Your task to perform on an android device: Open display settings Image 0: 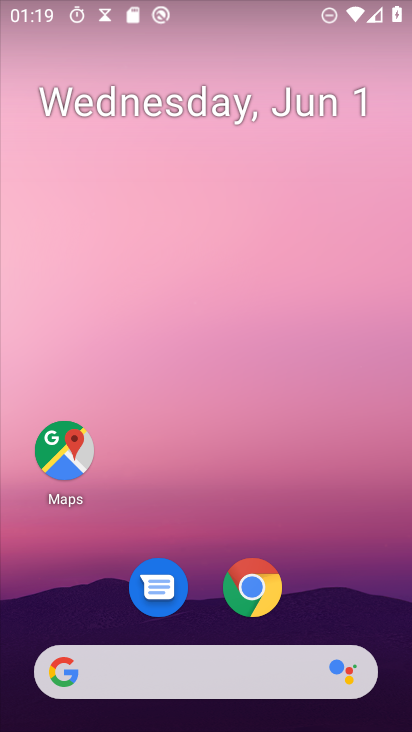
Step 0: drag from (305, 609) to (289, 135)
Your task to perform on an android device: Open display settings Image 1: 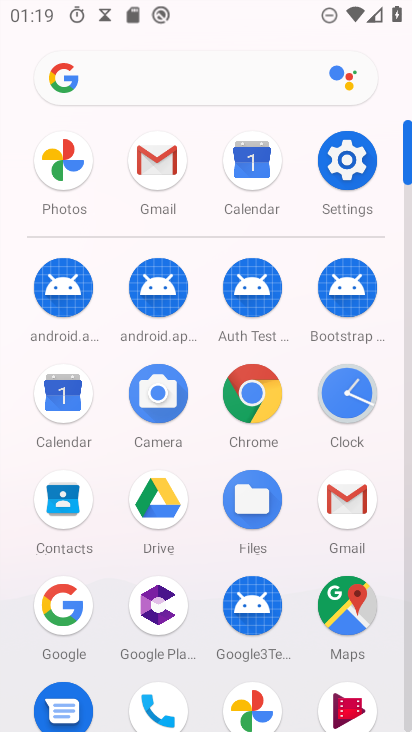
Step 1: click (354, 152)
Your task to perform on an android device: Open display settings Image 2: 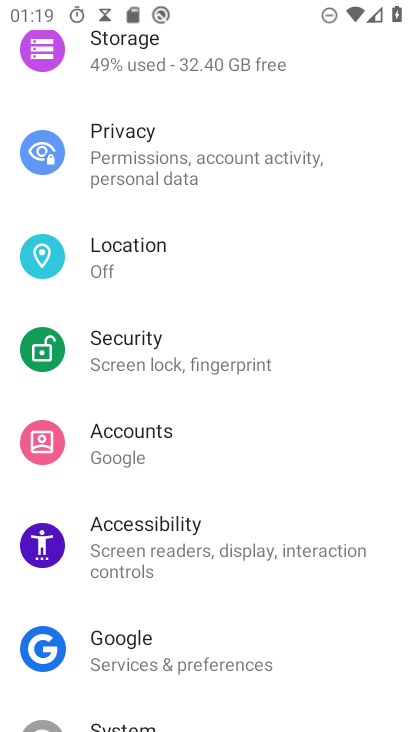
Step 2: drag from (184, 257) to (204, 697)
Your task to perform on an android device: Open display settings Image 3: 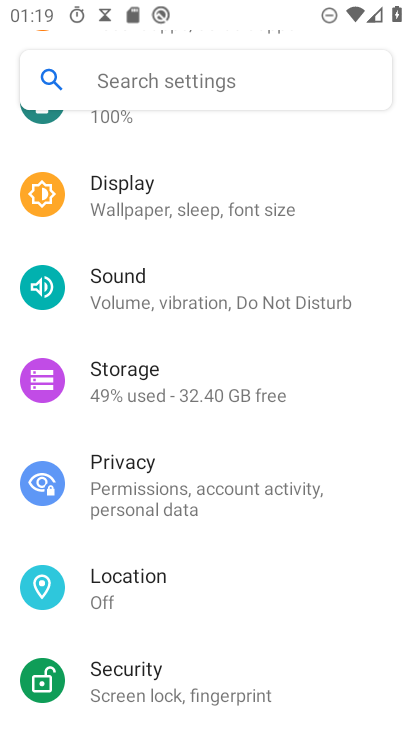
Step 3: click (152, 187)
Your task to perform on an android device: Open display settings Image 4: 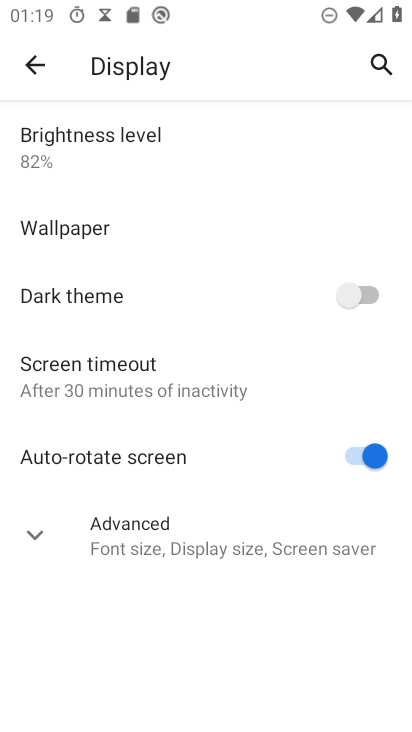
Step 4: task complete